Your task to perform on an android device: Do I have any events this weekend? Image 0: 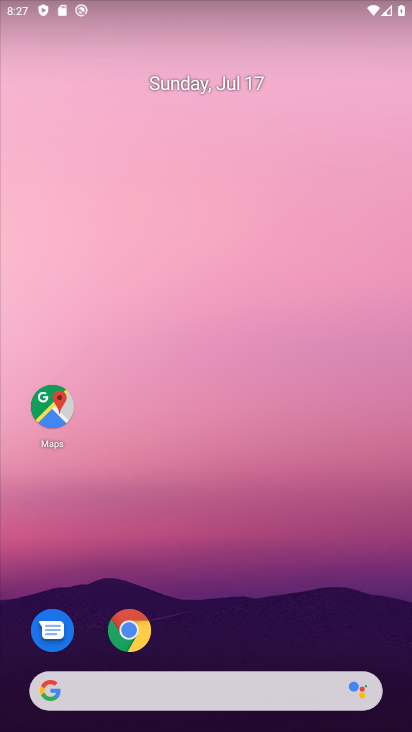
Step 0: drag from (220, 624) to (145, 185)
Your task to perform on an android device: Do I have any events this weekend? Image 1: 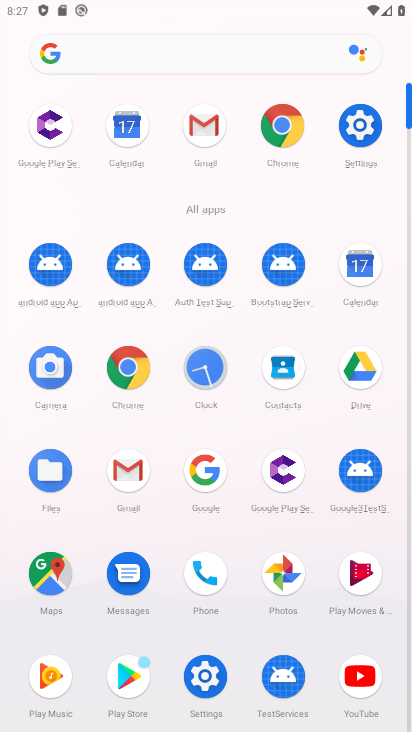
Step 1: click (111, 148)
Your task to perform on an android device: Do I have any events this weekend? Image 2: 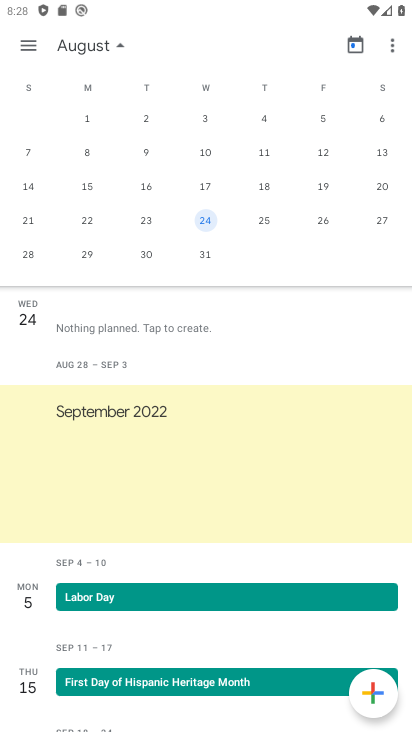
Step 2: task complete